Your task to perform on an android device: Open the clock app Image 0: 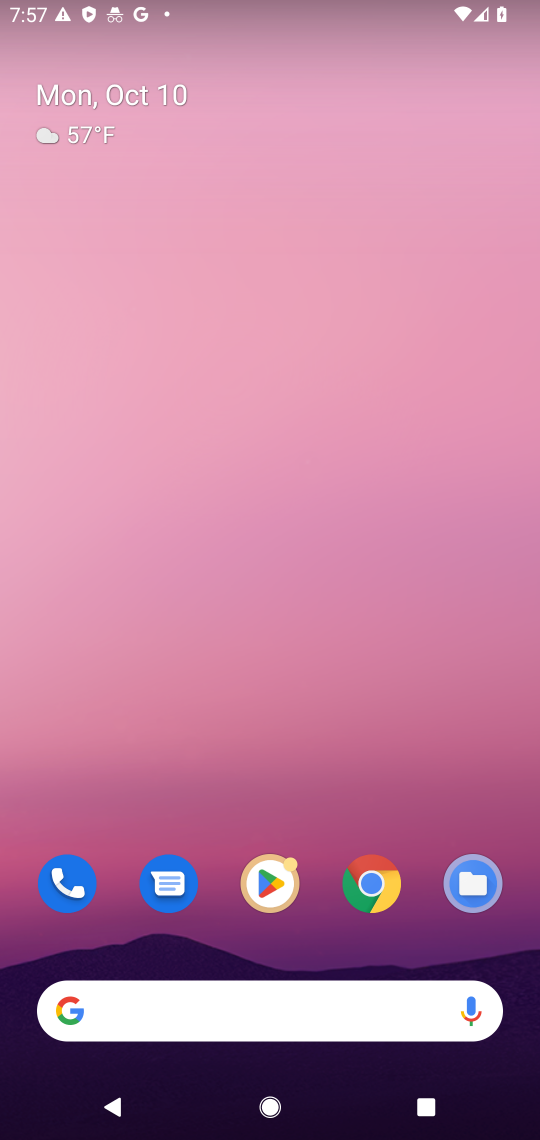
Step 0: drag from (335, 980) to (340, 208)
Your task to perform on an android device: Open the clock app Image 1: 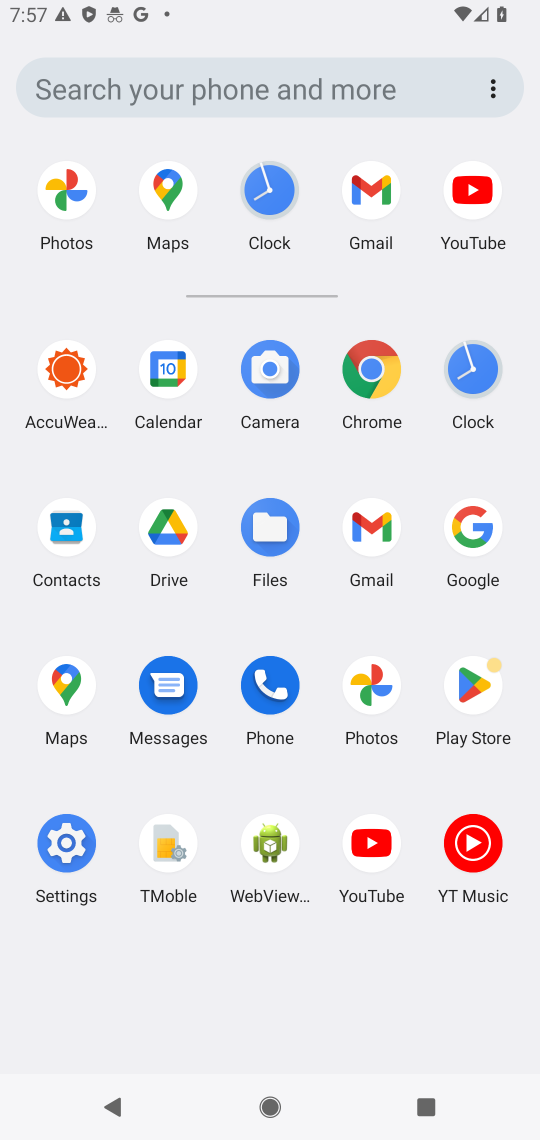
Step 1: click (462, 406)
Your task to perform on an android device: Open the clock app Image 2: 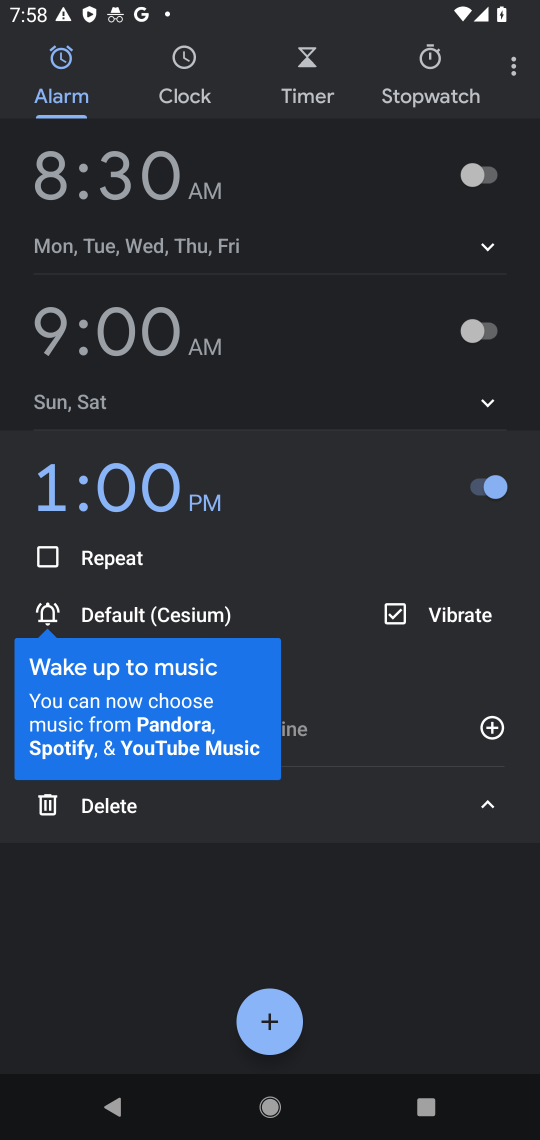
Step 2: task complete